Your task to perform on an android device: toggle airplane mode Image 0: 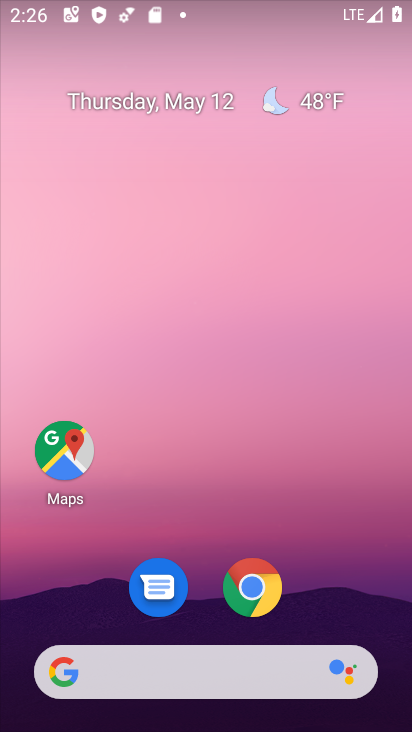
Step 0: drag from (246, 689) to (281, 284)
Your task to perform on an android device: toggle airplane mode Image 1: 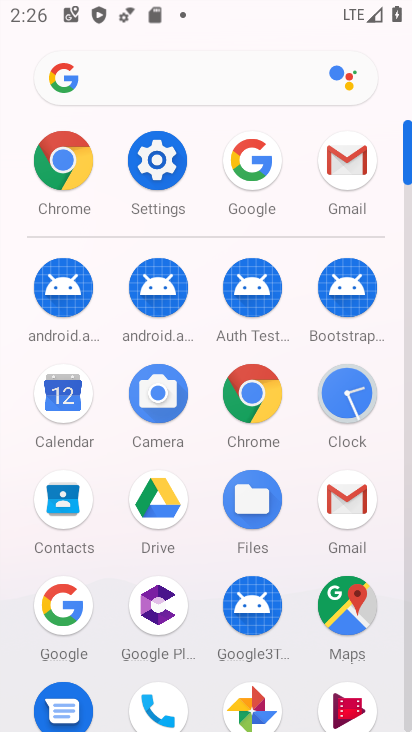
Step 1: click (133, 188)
Your task to perform on an android device: toggle airplane mode Image 2: 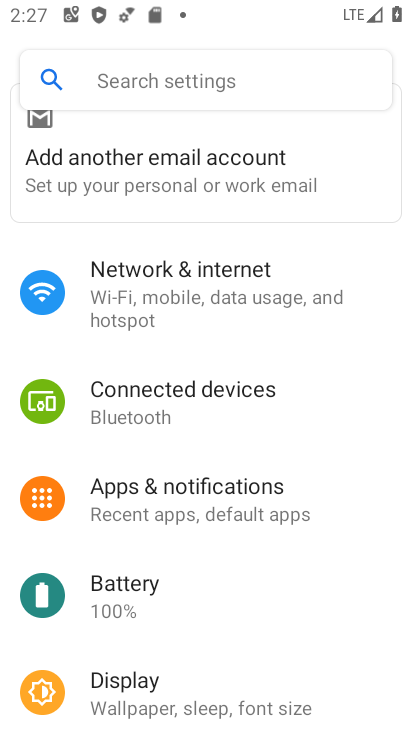
Step 2: click (231, 314)
Your task to perform on an android device: toggle airplane mode Image 3: 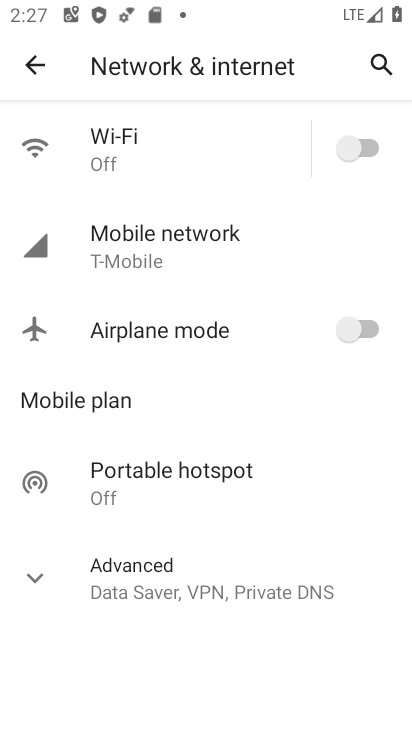
Step 3: click (275, 324)
Your task to perform on an android device: toggle airplane mode Image 4: 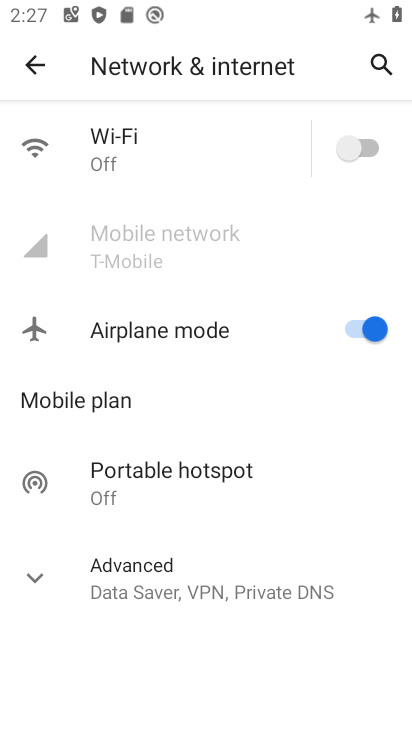
Step 4: task complete